Your task to perform on an android device: turn notification dots off Image 0: 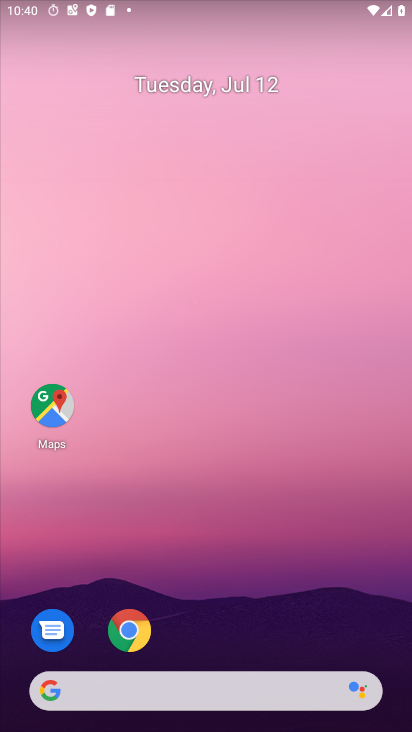
Step 0: drag from (235, 641) to (247, 197)
Your task to perform on an android device: turn notification dots off Image 1: 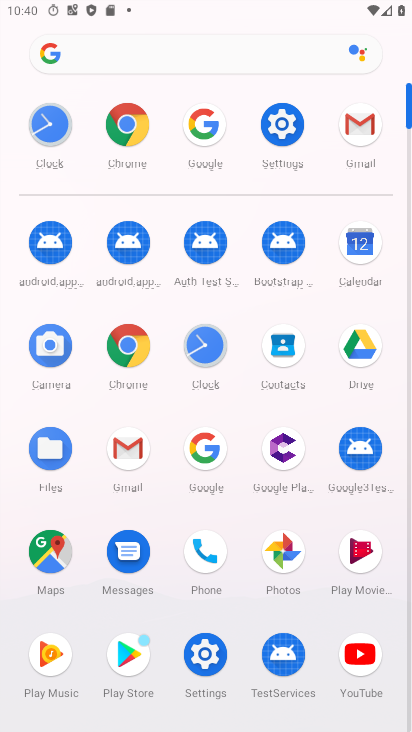
Step 1: click (276, 120)
Your task to perform on an android device: turn notification dots off Image 2: 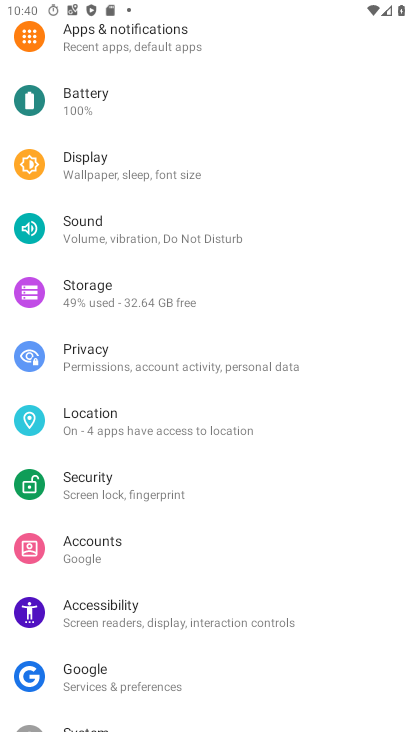
Step 2: drag from (114, 113) to (166, 343)
Your task to perform on an android device: turn notification dots off Image 3: 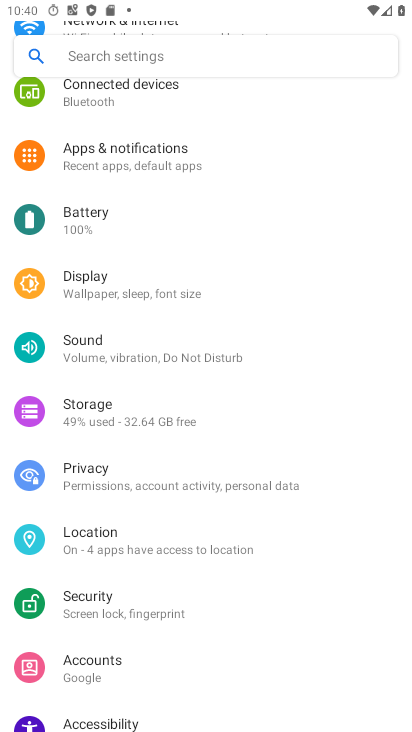
Step 3: click (126, 159)
Your task to perform on an android device: turn notification dots off Image 4: 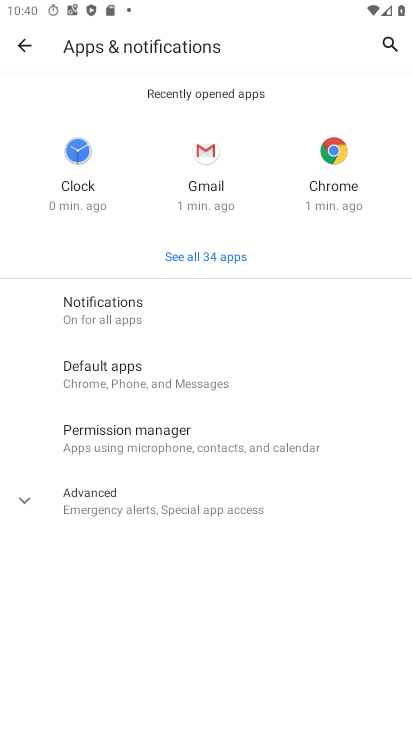
Step 4: click (138, 306)
Your task to perform on an android device: turn notification dots off Image 5: 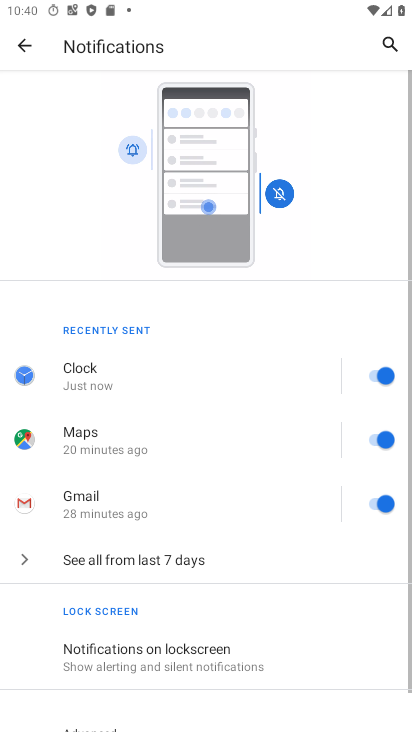
Step 5: drag from (178, 660) to (190, 321)
Your task to perform on an android device: turn notification dots off Image 6: 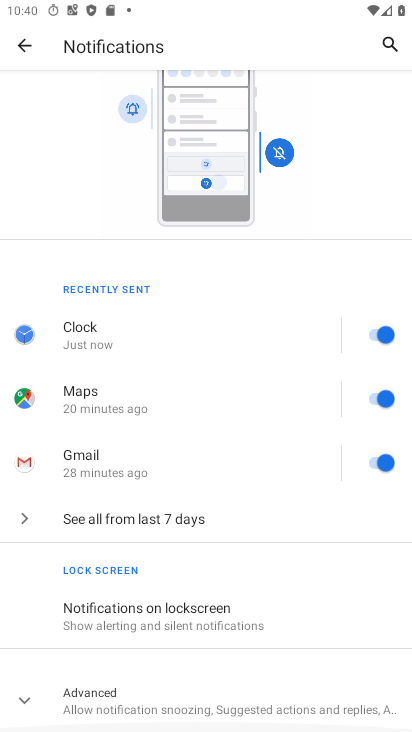
Step 6: click (125, 697)
Your task to perform on an android device: turn notification dots off Image 7: 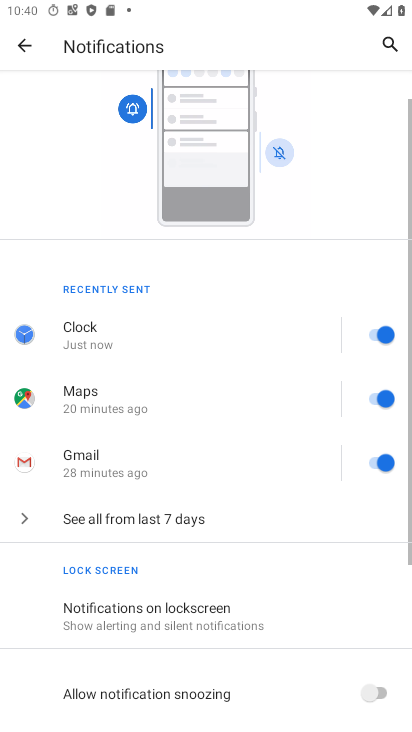
Step 7: drag from (234, 659) to (240, 323)
Your task to perform on an android device: turn notification dots off Image 8: 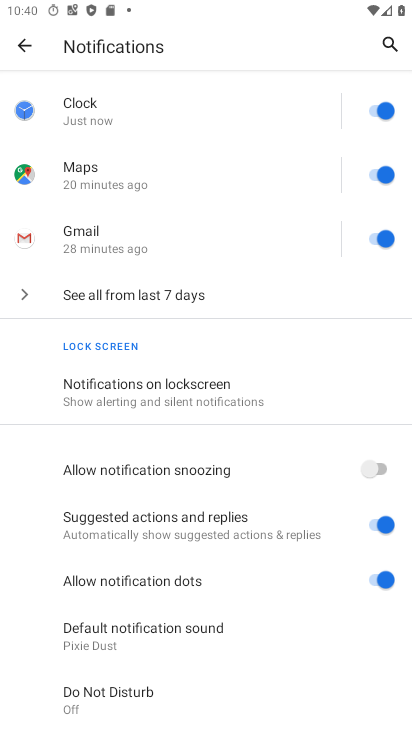
Step 8: click (377, 578)
Your task to perform on an android device: turn notification dots off Image 9: 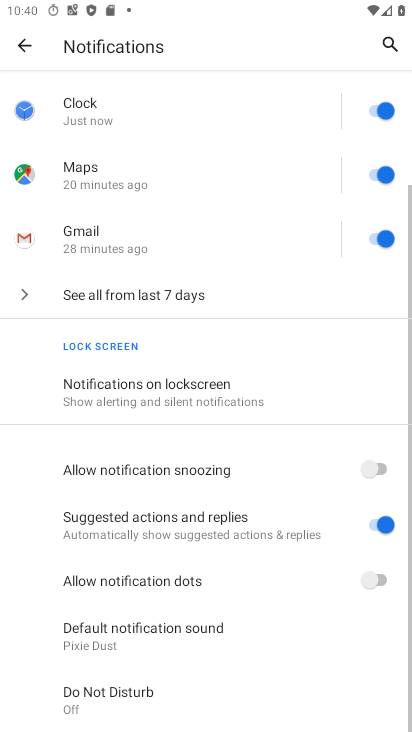
Step 9: task complete